Your task to perform on an android device: turn off location Image 0: 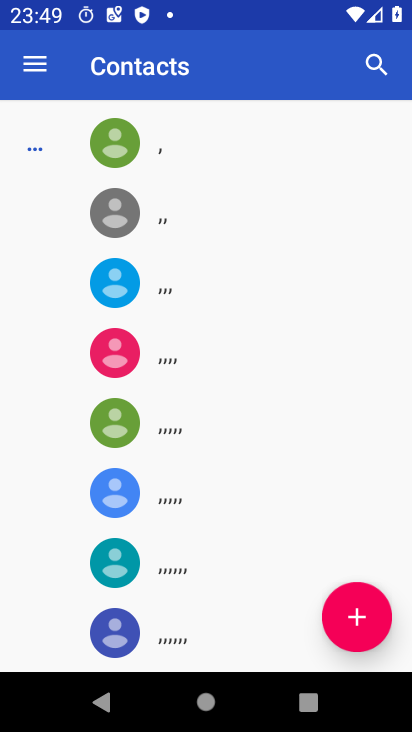
Step 0: drag from (198, 578) to (253, 214)
Your task to perform on an android device: turn off location Image 1: 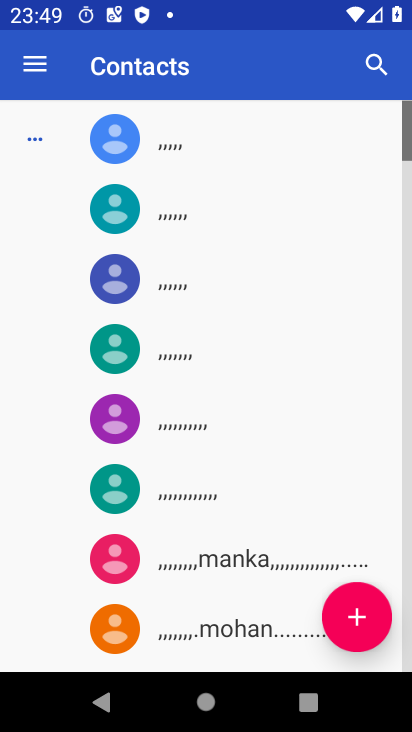
Step 1: press home button
Your task to perform on an android device: turn off location Image 2: 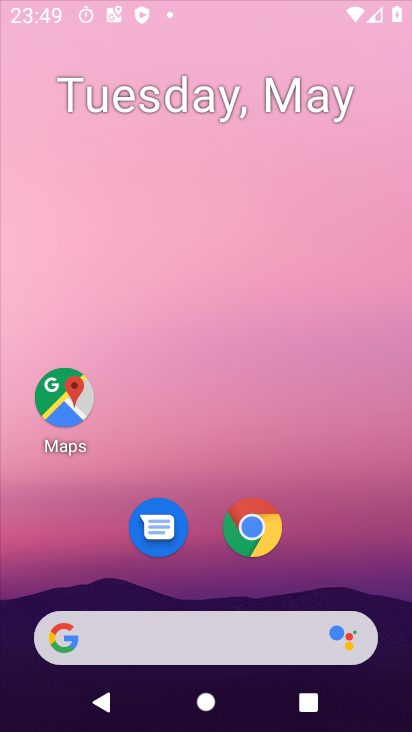
Step 2: drag from (224, 511) to (238, 121)
Your task to perform on an android device: turn off location Image 3: 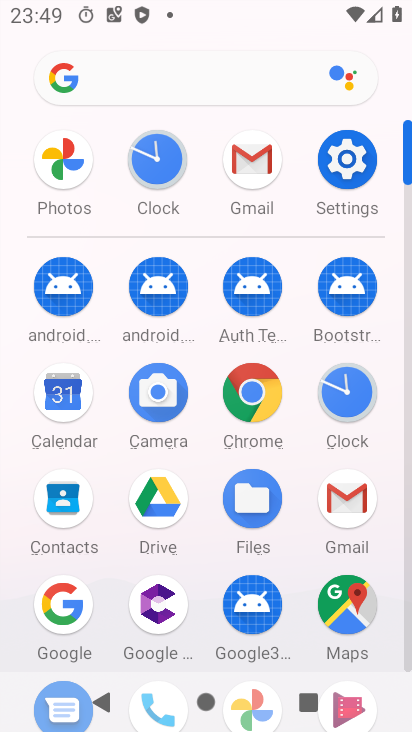
Step 3: click (353, 149)
Your task to perform on an android device: turn off location Image 4: 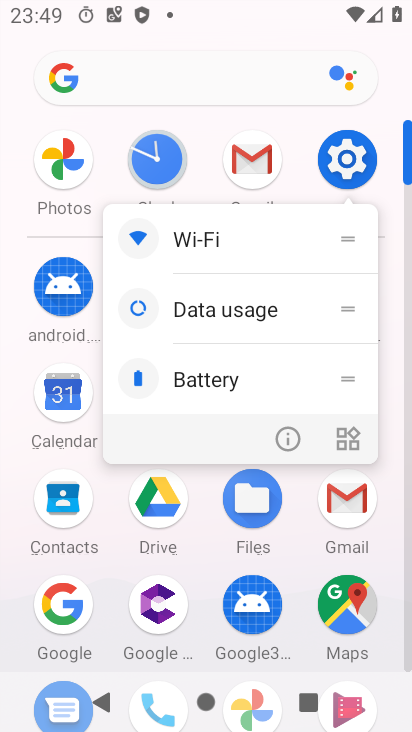
Step 4: click (296, 433)
Your task to perform on an android device: turn off location Image 5: 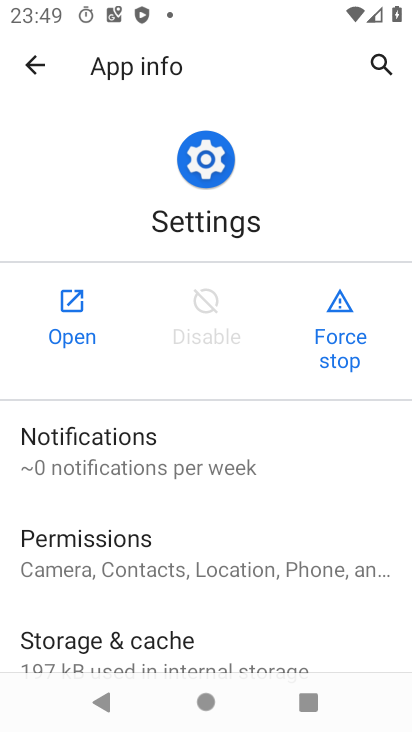
Step 5: click (74, 312)
Your task to perform on an android device: turn off location Image 6: 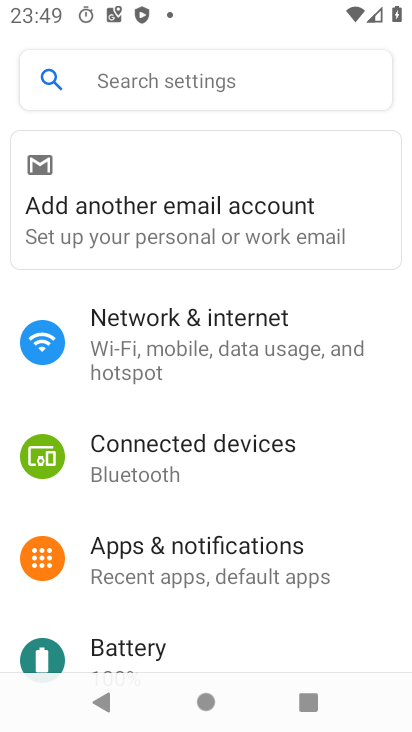
Step 6: drag from (207, 563) to (273, 102)
Your task to perform on an android device: turn off location Image 7: 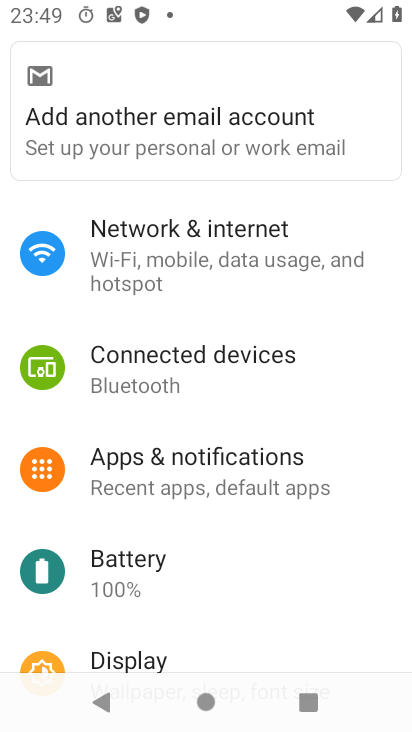
Step 7: drag from (182, 598) to (260, 142)
Your task to perform on an android device: turn off location Image 8: 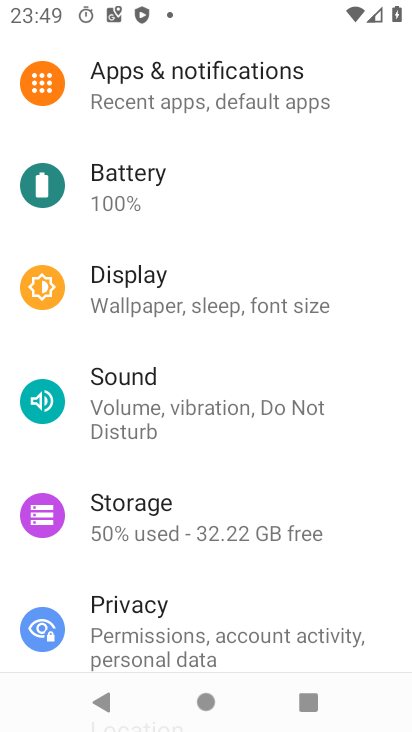
Step 8: drag from (171, 547) to (197, 199)
Your task to perform on an android device: turn off location Image 9: 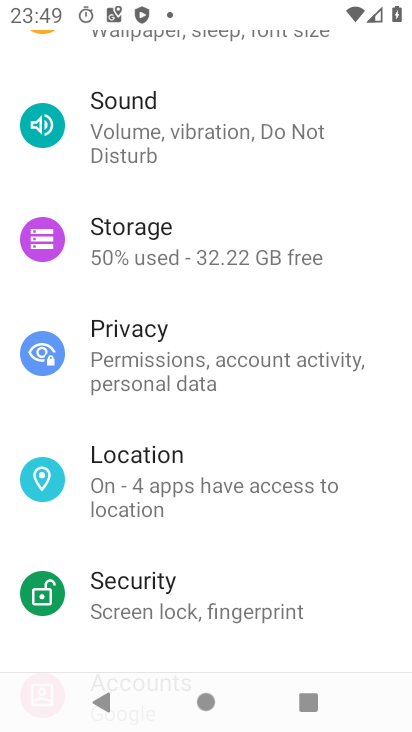
Step 9: click (172, 465)
Your task to perform on an android device: turn off location Image 10: 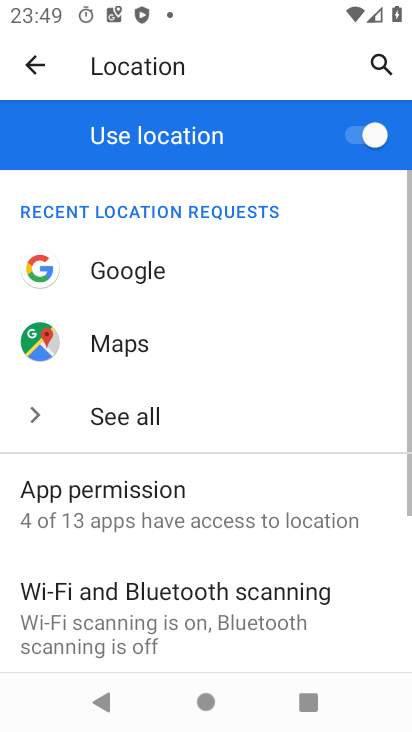
Step 10: drag from (176, 562) to (229, 180)
Your task to perform on an android device: turn off location Image 11: 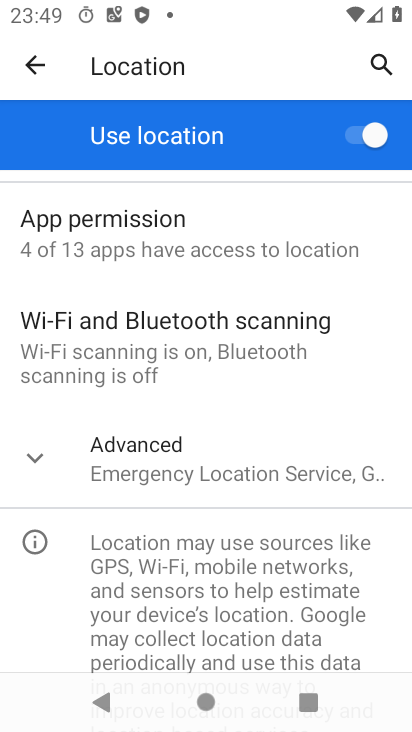
Step 11: drag from (216, 497) to (277, 138)
Your task to perform on an android device: turn off location Image 12: 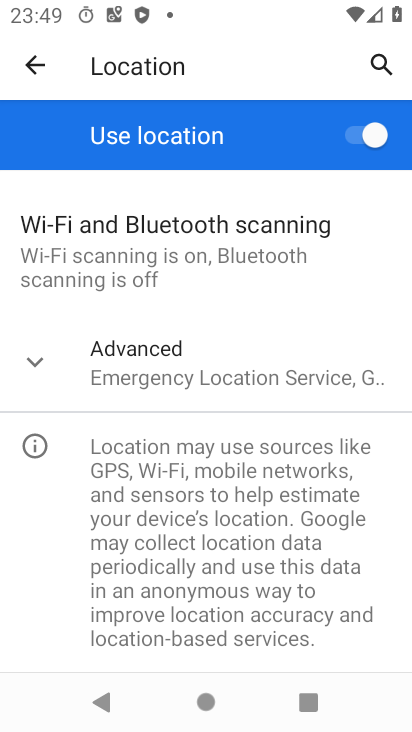
Step 12: click (195, 357)
Your task to perform on an android device: turn off location Image 13: 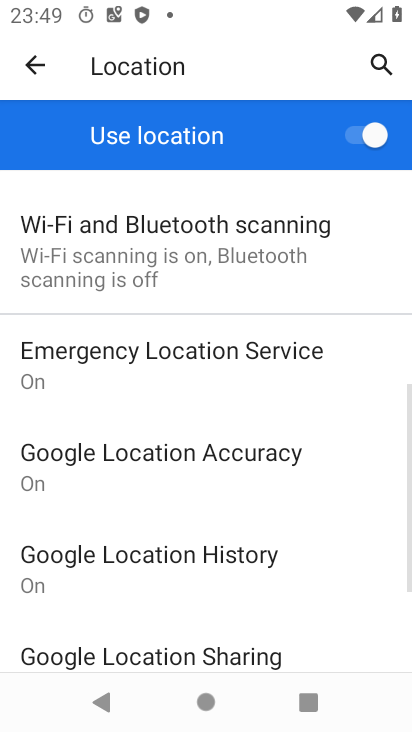
Step 13: drag from (198, 520) to (210, 249)
Your task to perform on an android device: turn off location Image 14: 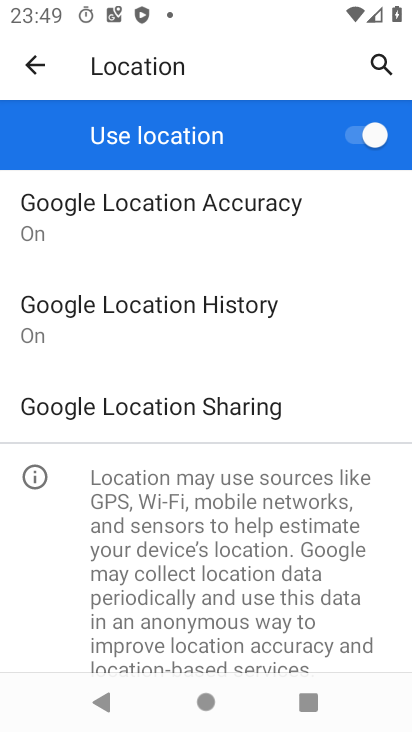
Step 14: drag from (170, 246) to (277, 576)
Your task to perform on an android device: turn off location Image 15: 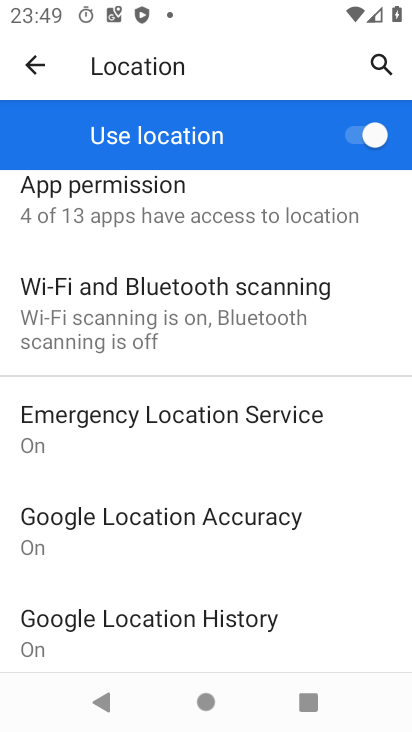
Step 15: drag from (229, 479) to (251, 272)
Your task to perform on an android device: turn off location Image 16: 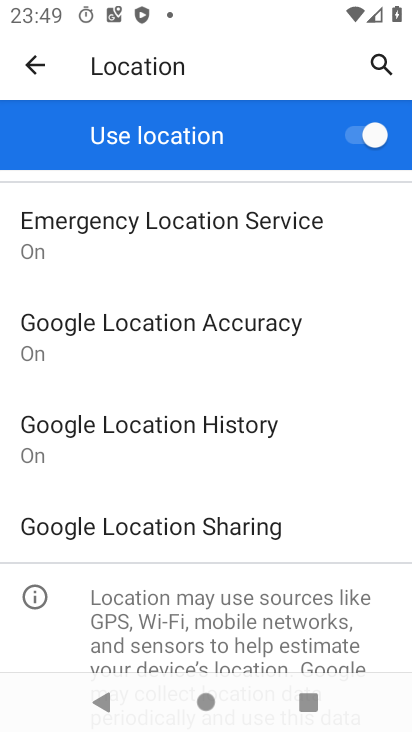
Step 16: drag from (196, 434) to (223, 221)
Your task to perform on an android device: turn off location Image 17: 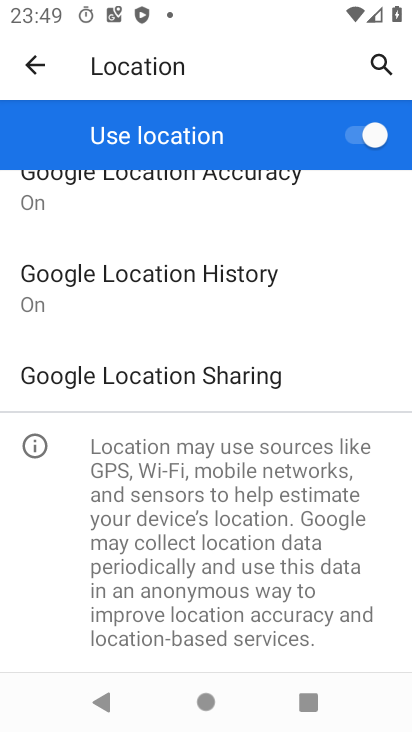
Step 17: drag from (243, 483) to (255, 241)
Your task to perform on an android device: turn off location Image 18: 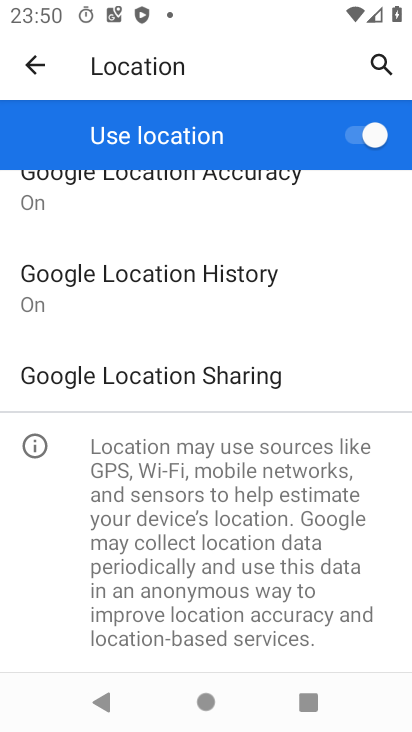
Step 18: drag from (208, 508) to (231, 266)
Your task to perform on an android device: turn off location Image 19: 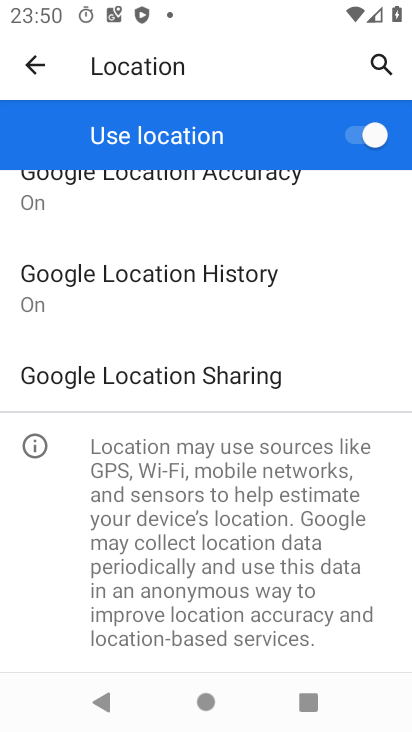
Step 19: drag from (203, 261) to (382, 706)
Your task to perform on an android device: turn off location Image 20: 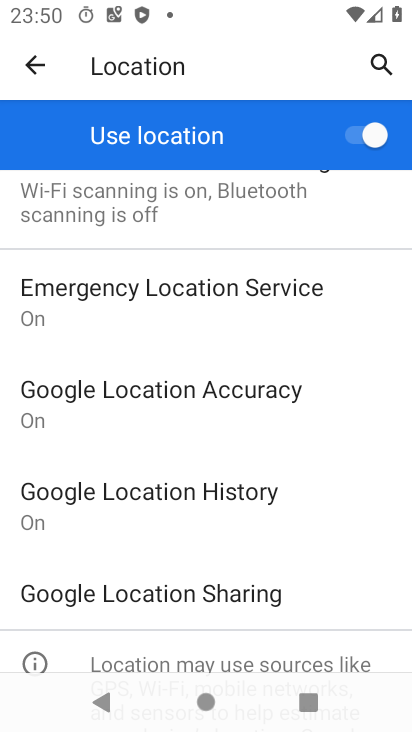
Step 20: click (367, 114)
Your task to perform on an android device: turn off location Image 21: 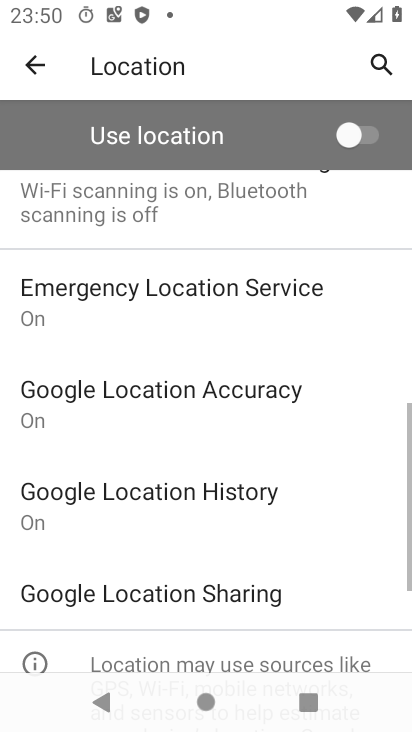
Step 21: task complete